Your task to perform on an android device: Go to display settings Image 0: 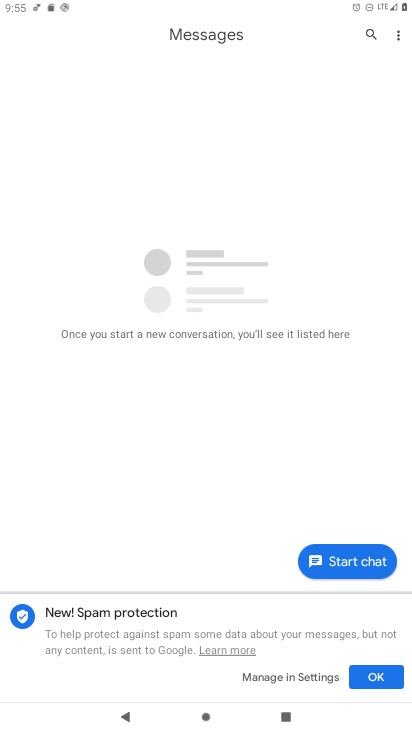
Step 0: press home button
Your task to perform on an android device: Go to display settings Image 1: 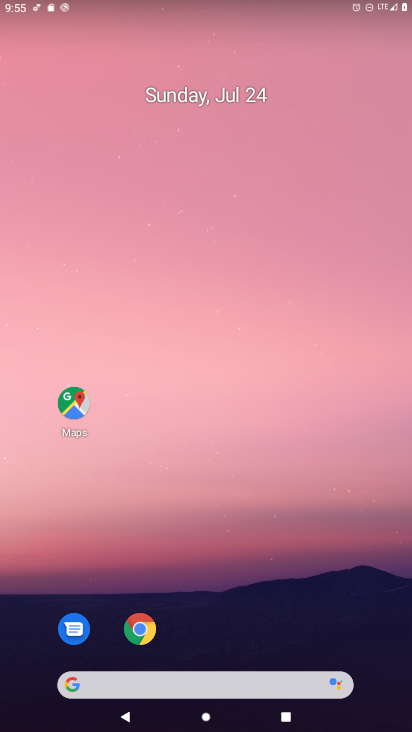
Step 1: drag from (387, 637) to (130, 27)
Your task to perform on an android device: Go to display settings Image 2: 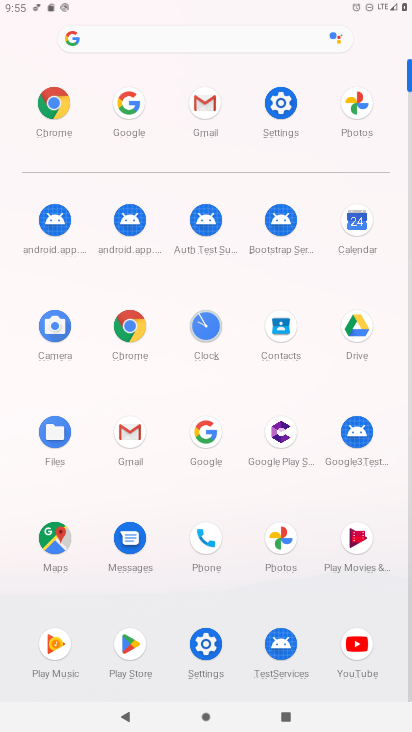
Step 2: click (199, 647)
Your task to perform on an android device: Go to display settings Image 3: 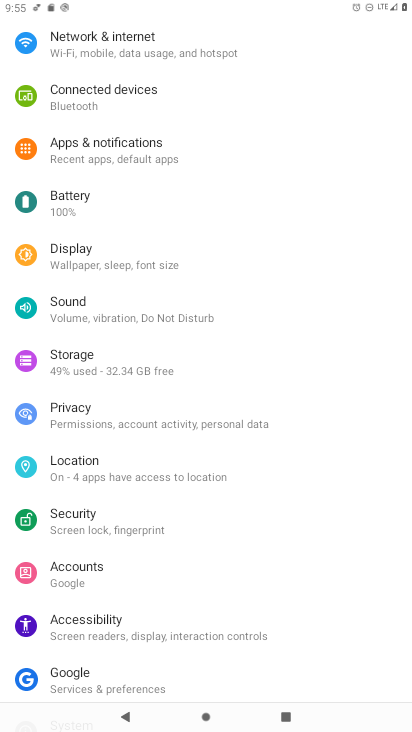
Step 3: click (66, 247)
Your task to perform on an android device: Go to display settings Image 4: 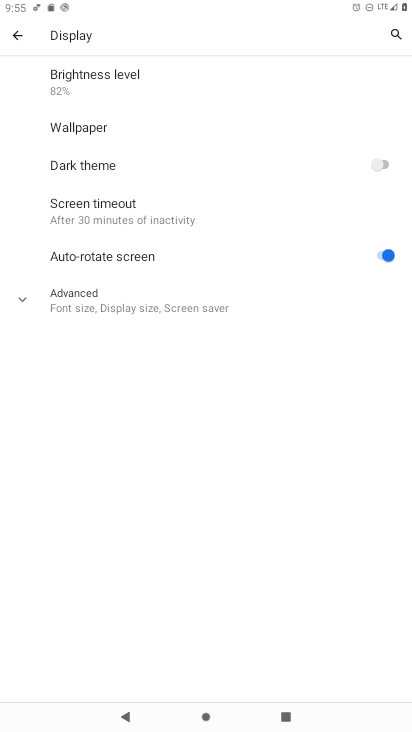
Step 4: task complete